Your task to perform on an android device: Open the phone app and click the voicemail tab. Image 0: 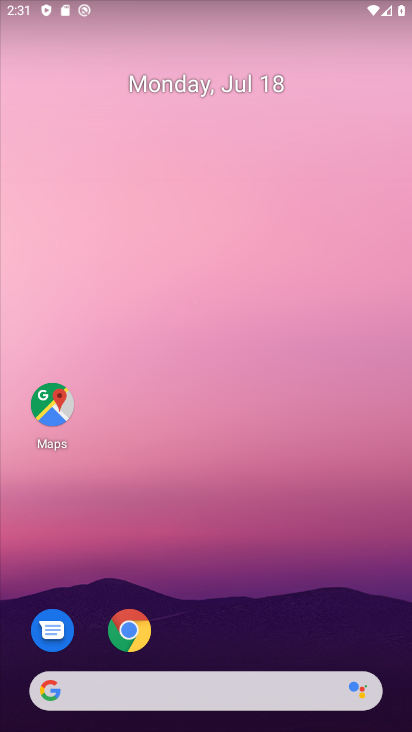
Step 0: drag from (220, 351) to (207, 162)
Your task to perform on an android device: Open the phone app and click the voicemail tab. Image 1: 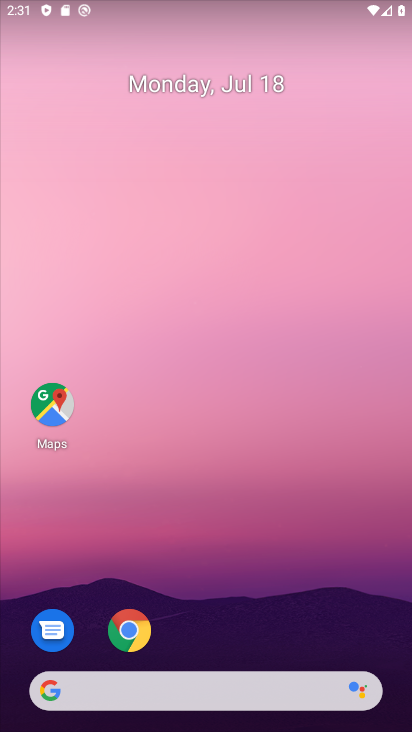
Step 1: drag from (340, 584) to (227, 95)
Your task to perform on an android device: Open the phone app and click the voicemail tab. Image 2: 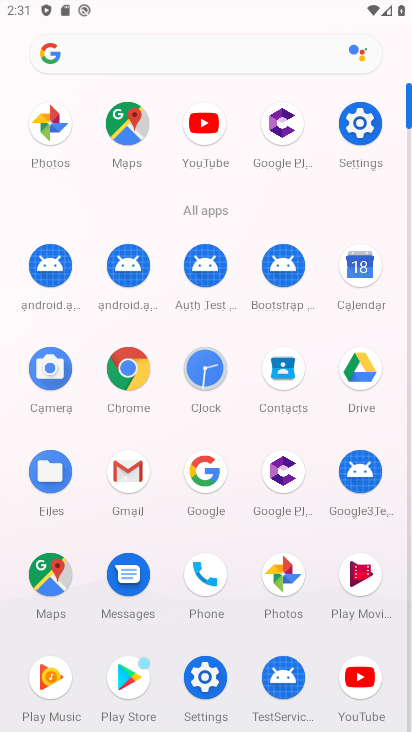
Step 2: click (222, 563)
Your task to perform on an android device: Open the phone app and click the voicemail tab. Image 3: 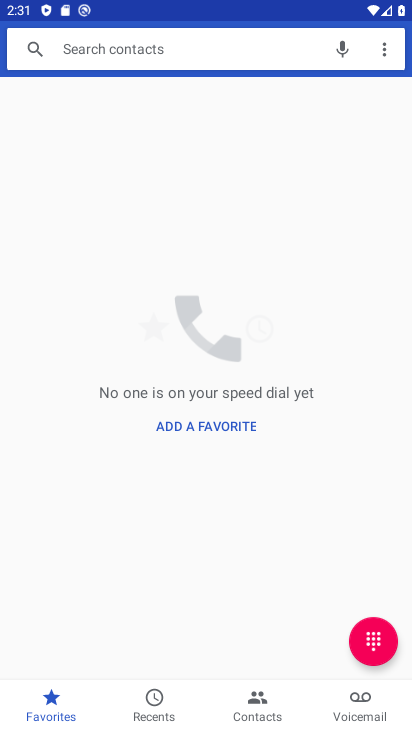
Step 3: click (381, 708)
Your task to perform on an android device: Open the phone app and click the voicemail tab. Image 4: 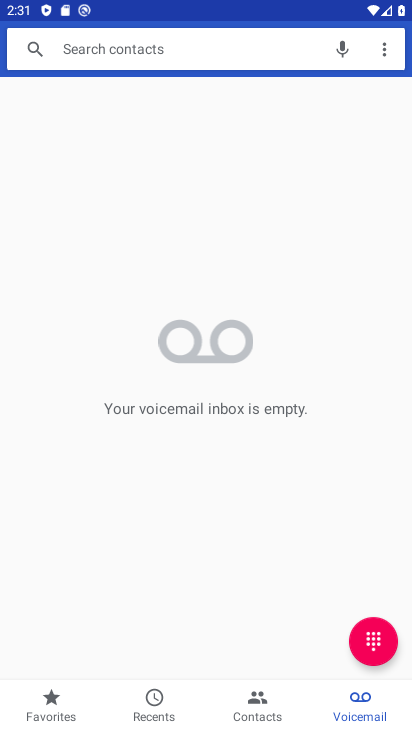
Step 4: click (368, 707)
Your task to perform on an android device: Open the phone app and click the voicemail tab. Image 5: 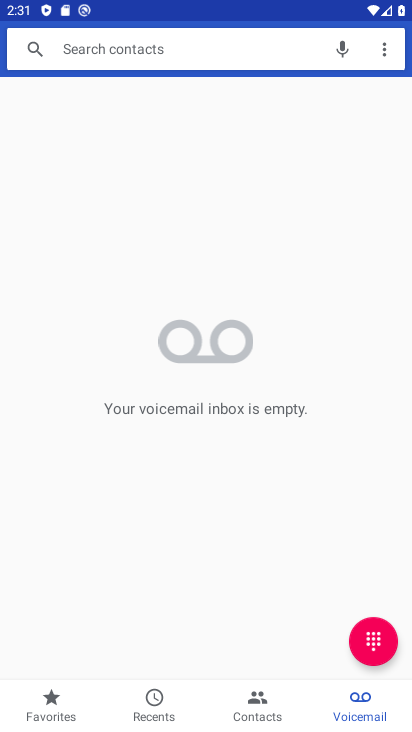
Step 5: task complete